Your task to perform on an android device: check out phone information Image 0: 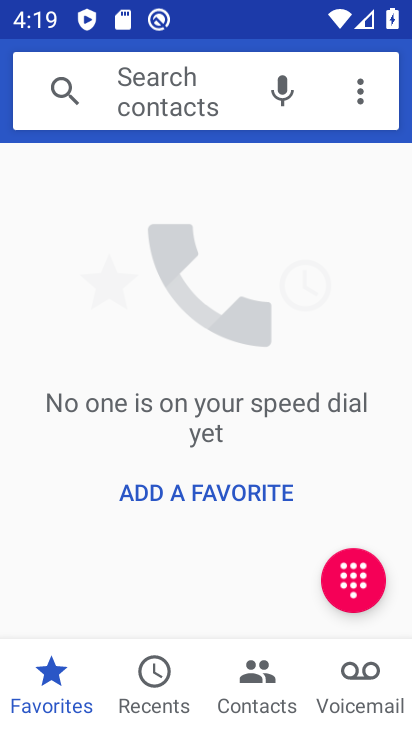
Step 0: press home button
Your task to perform on an android device: check out phone information Image 1: 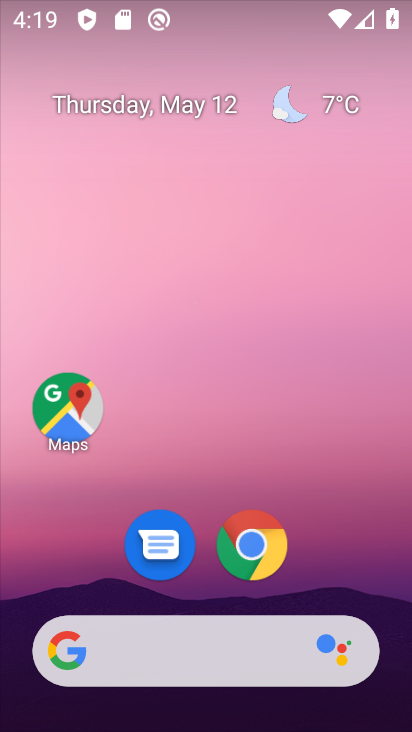
Step 1: drag from (312, 548) to (322, 107)
Your task to perform on an android device: check out phone information Image 2: 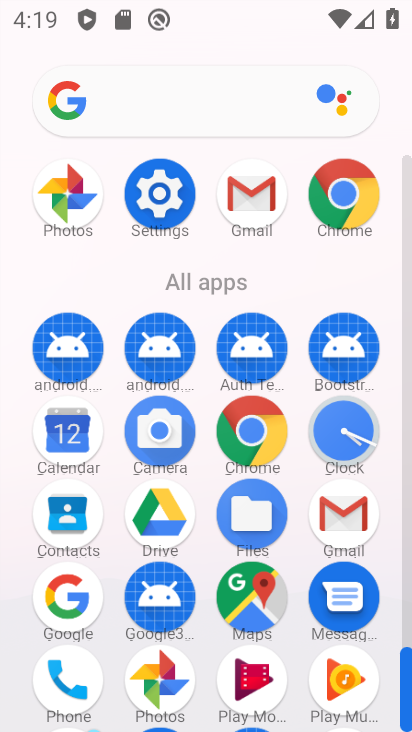
Step 2: click (67, 667)
Your task to perform on an android device: check out phone information Image 3: 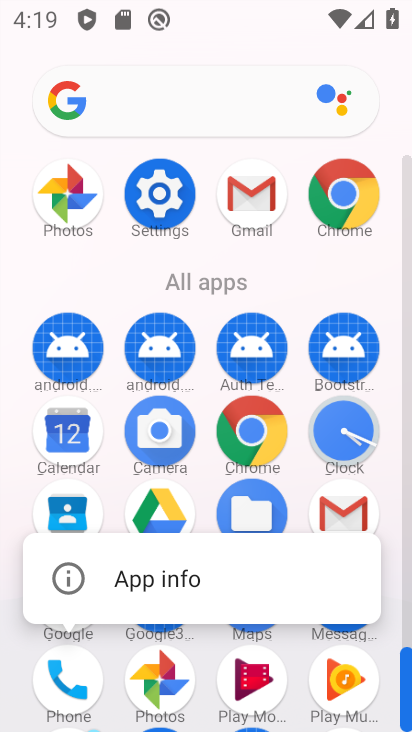
Step 3: click (154, 580)
Your task to perform on an android device: check out phone information Image 4: 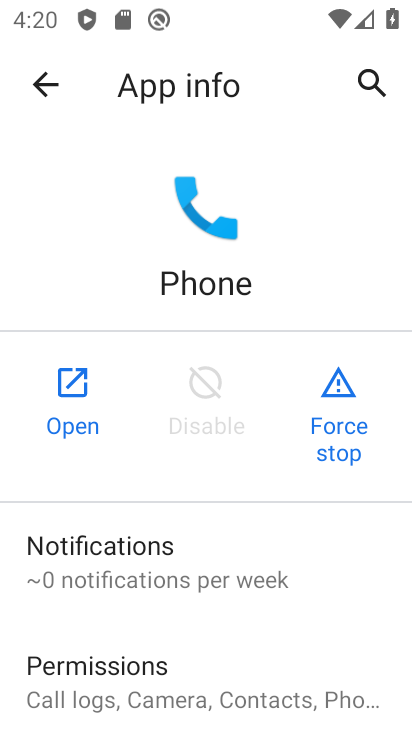
Step 4: task complete